Your task to perform on an android device: toggle sleep mode Image 0: 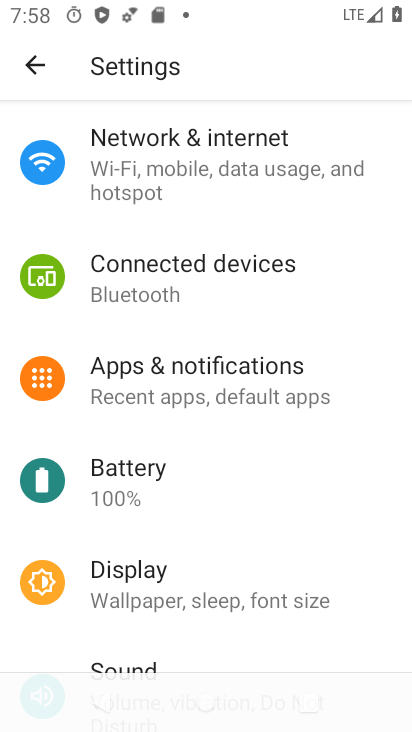
Step 0: click (141, 579)
Your task to perform on an android device: toggle sleep mode Image 1: 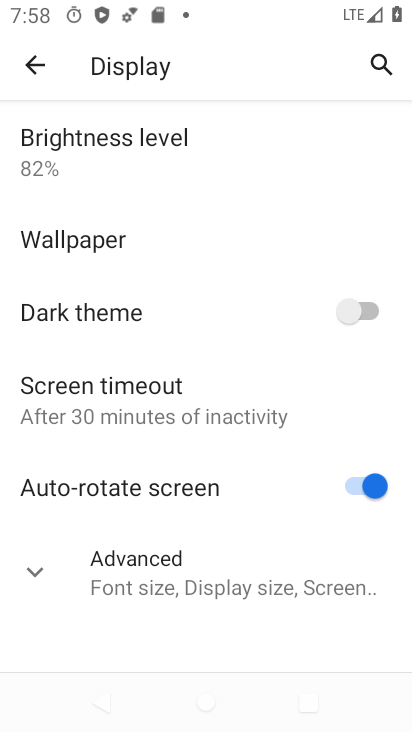
Step 1: click (137, 407)
Your task to perform on an android device: toggle sleep mode Image 2: 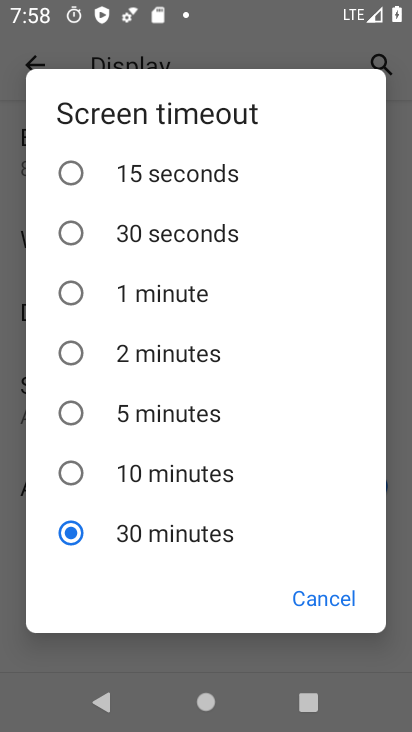
Step 2: click (66, 406)
Your task to perform on an android device: toggle sleep mode Image 3: 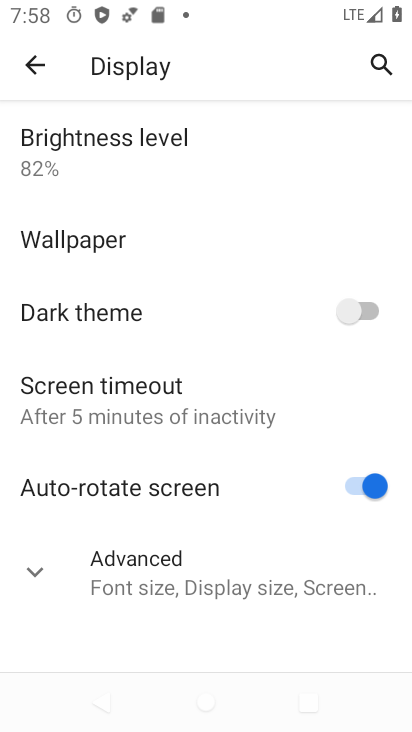
Step 3: task complete